Your task to perform on an android device: Clear the shopping cart on costco. Search for "macbook air" on costco, select the first entry, add it to the cart, then select checkout. Image 0: 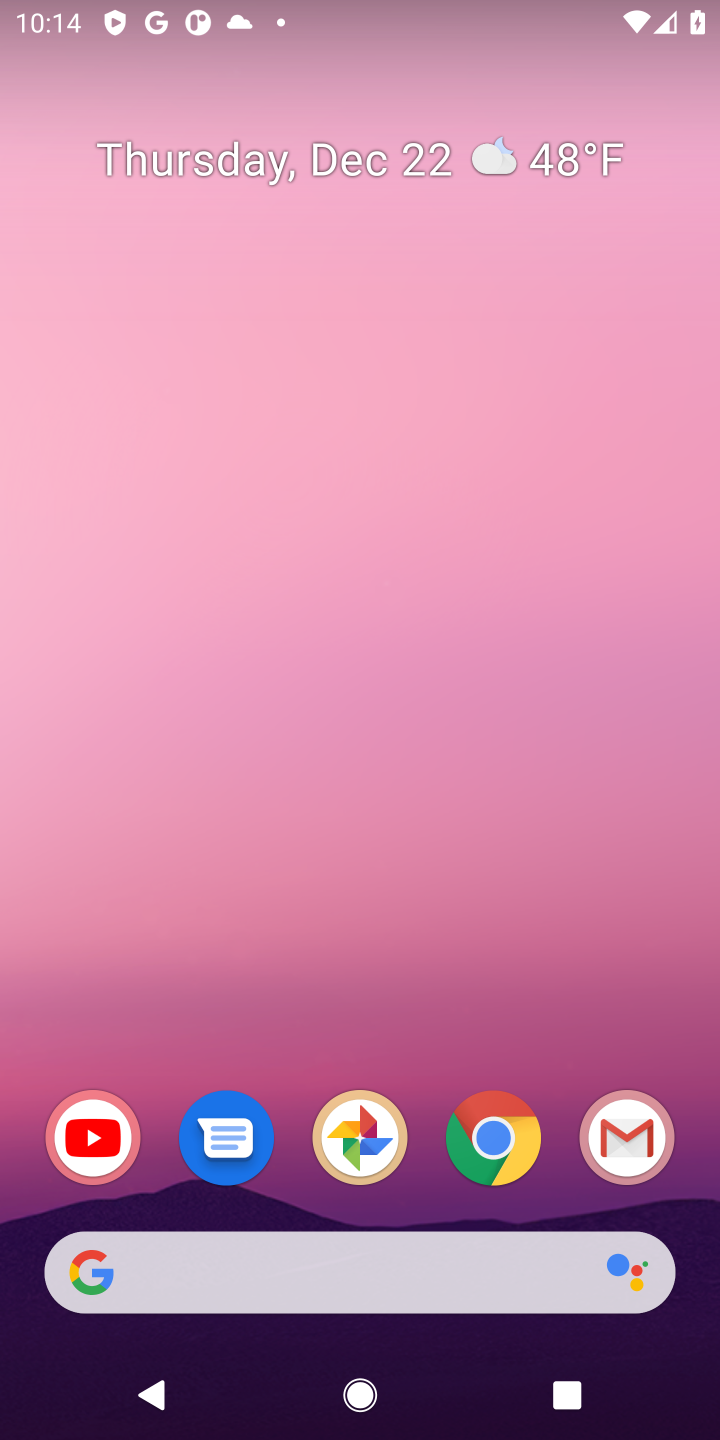
Step 0: click (511, 1134)
Your task to perform on an android device: Clear the shopping cart on costco. Search for "macbook air" on costco, select the first entry, add it to the cart, then select checkout. Image 1: 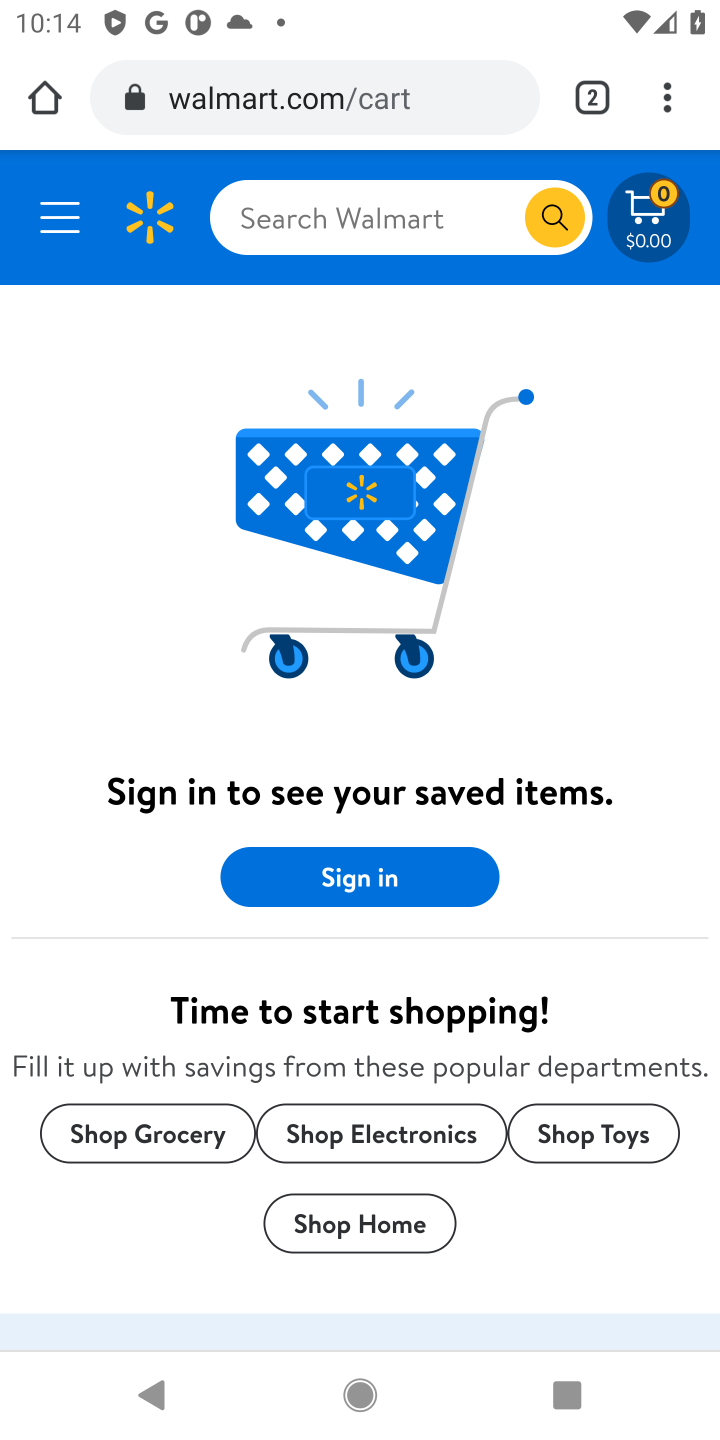
Step 1: click (43, 101)
Your task to perform on an android device: Clear the shopping cart on costco. Search for "macbook air" on costco, select the first entry, add it to the cart, then select checkout. Image 2: 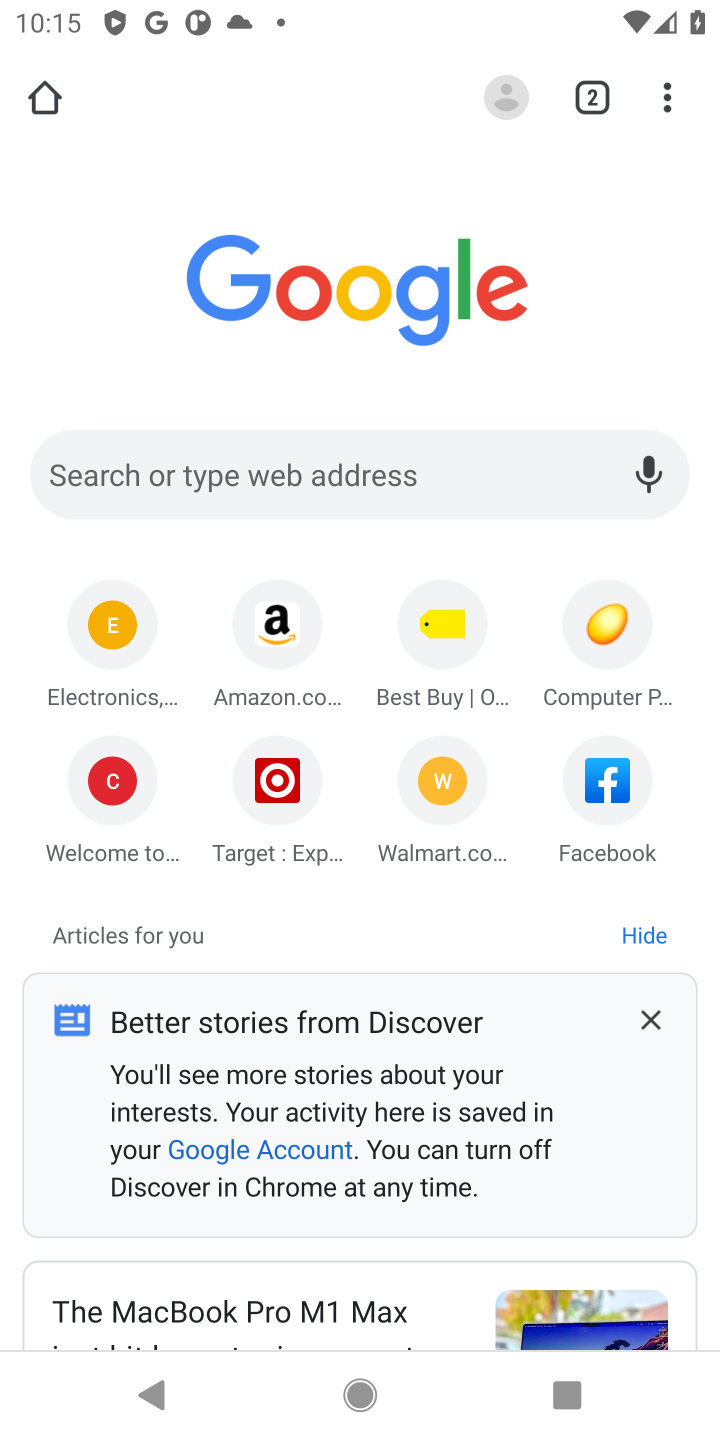
Step 2: click (346, 478)
Your task to perform on an android device: Clear the shopping cart on costco. Search for "macbook air" on costco, select the first entry, add it to the cart, then select checkout. Image 3: 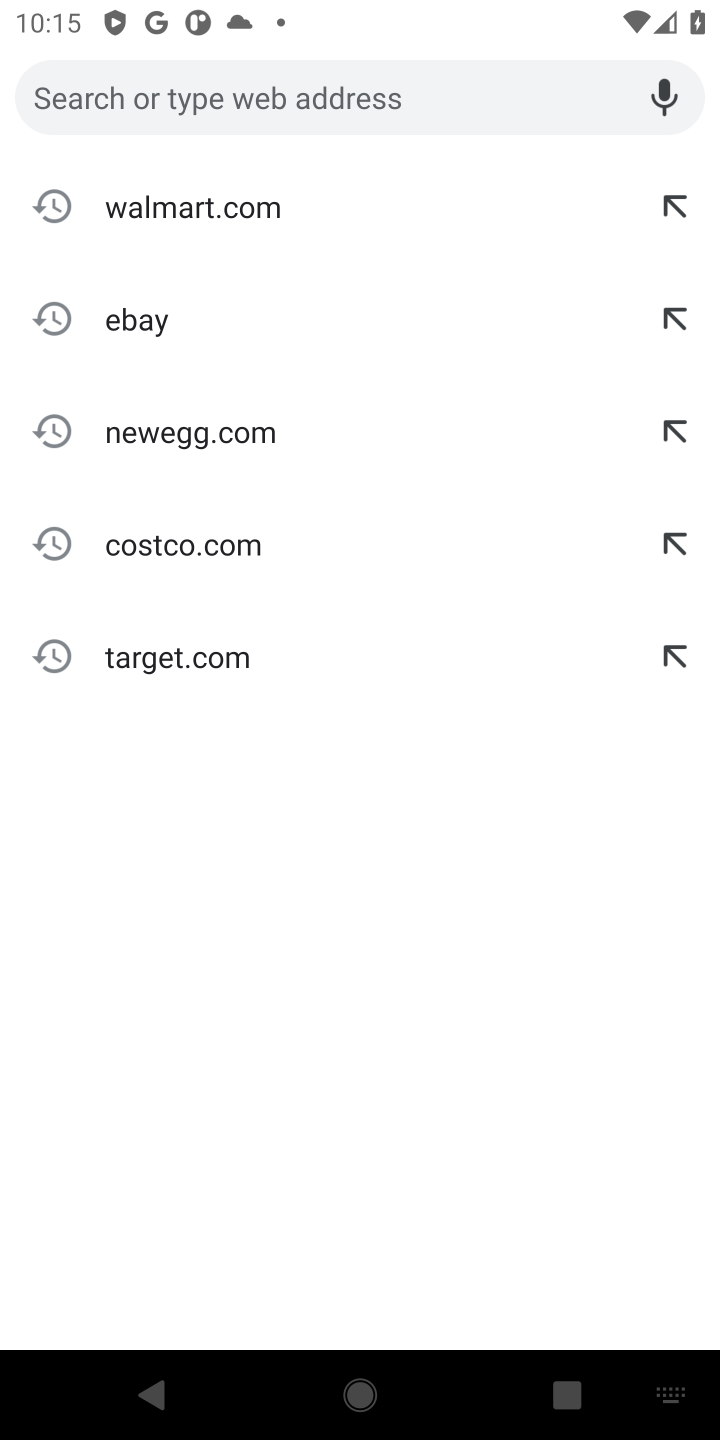
Step 3: click (209, 557)
Your task to perform on an android device: Clear the shopping cart on costco. Search for "macbook air" on costco, select the first entry, add it to the cart, then select checkout. Image 4: 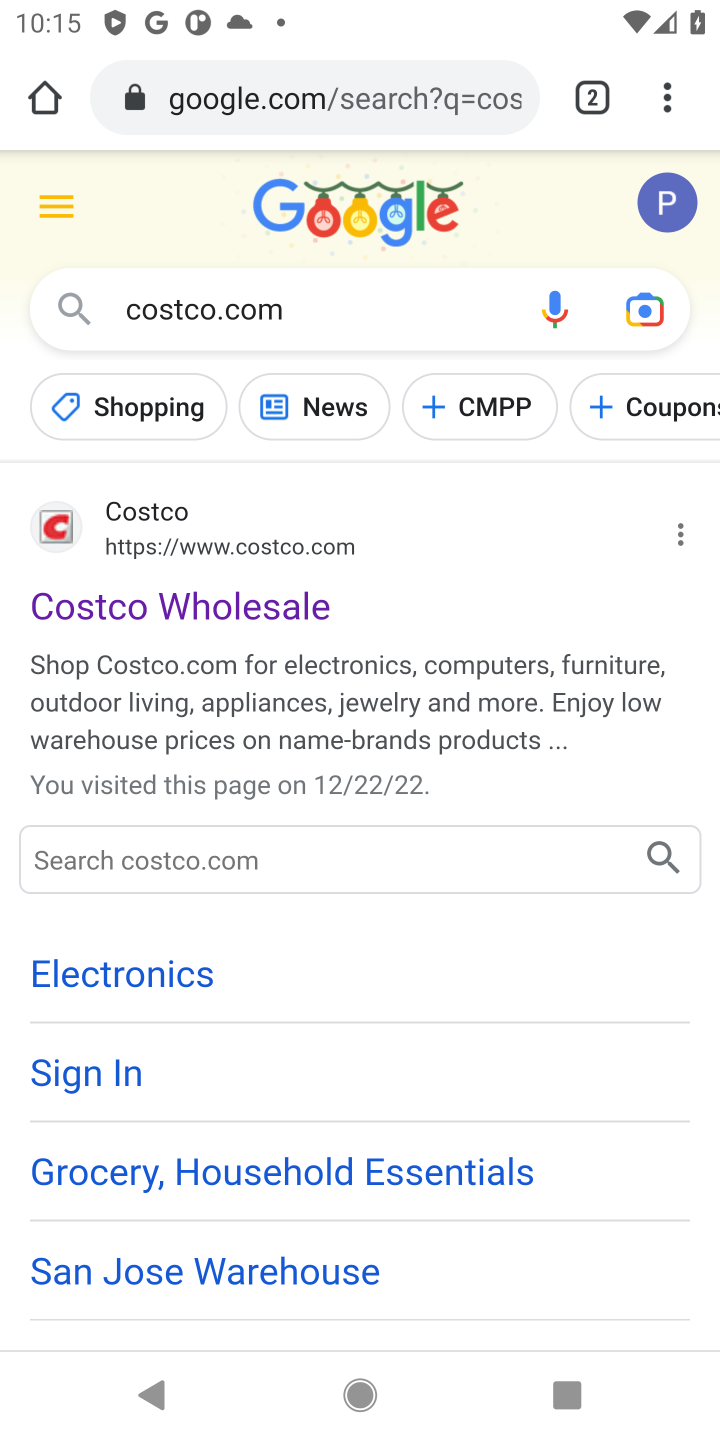
Step 4: click (210, 554)
Your task to perform on an android device: Clear the shopping cart on costco. Search for "macbook air" on costco, select the first entry, add it to the cart, then select checkout. Image 5: 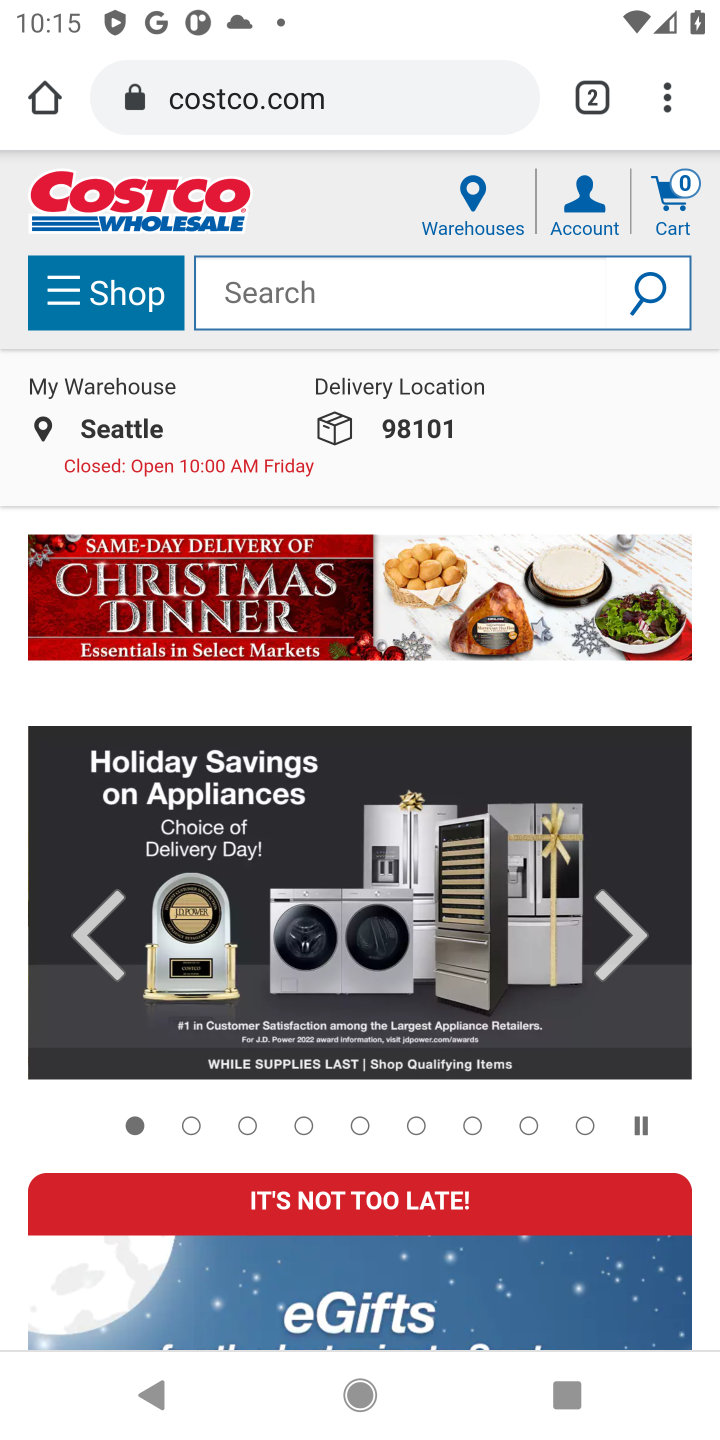
Step 5: click (667, 208)
Your task to perform on an android device: Clear the shopping cart on costco. Search for "macbook air" on costco, select the first entry, add it to the cart, then select checkout. Image 6: 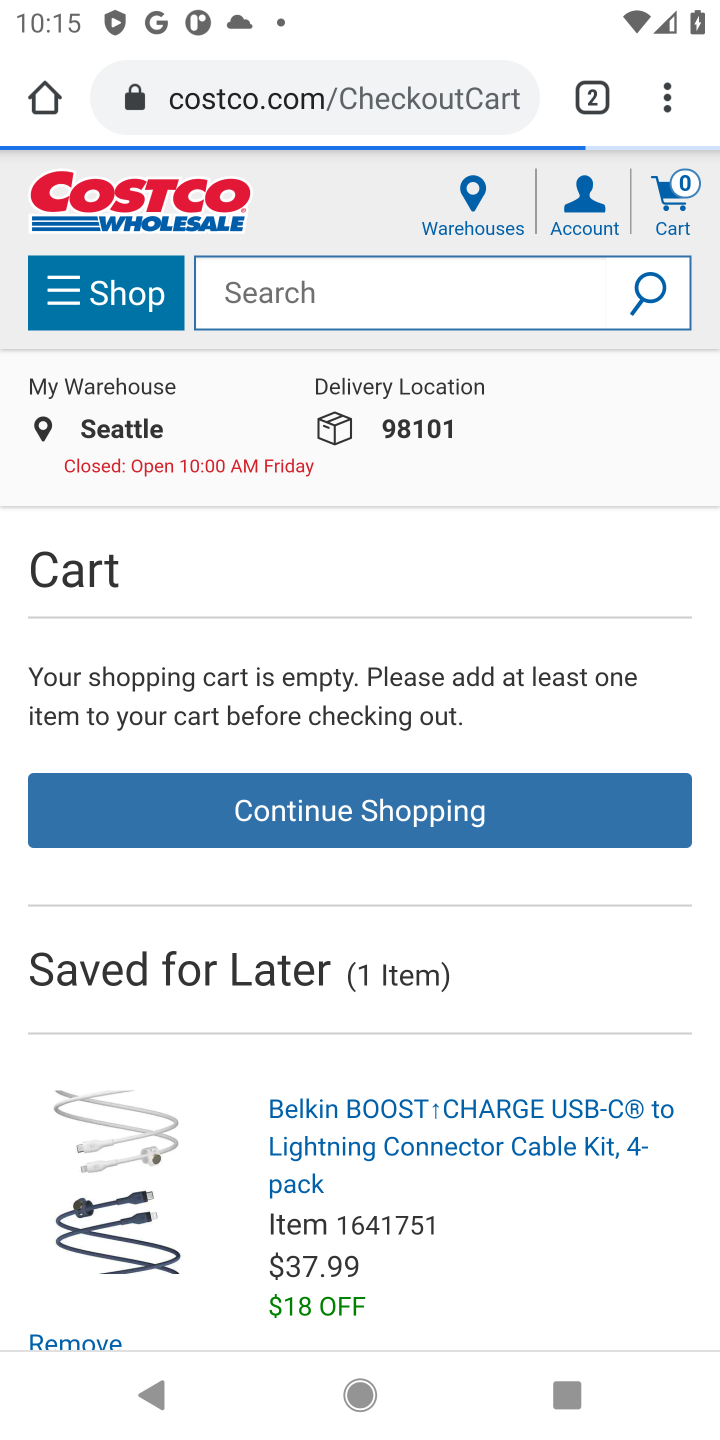
Step 6: click (437, 290)
Your task to perform on an android device: Clear the shopping cart on costco. Search for "macbook air" on costco, select the first entry, add it to the cart, then select checkout. Image 7: 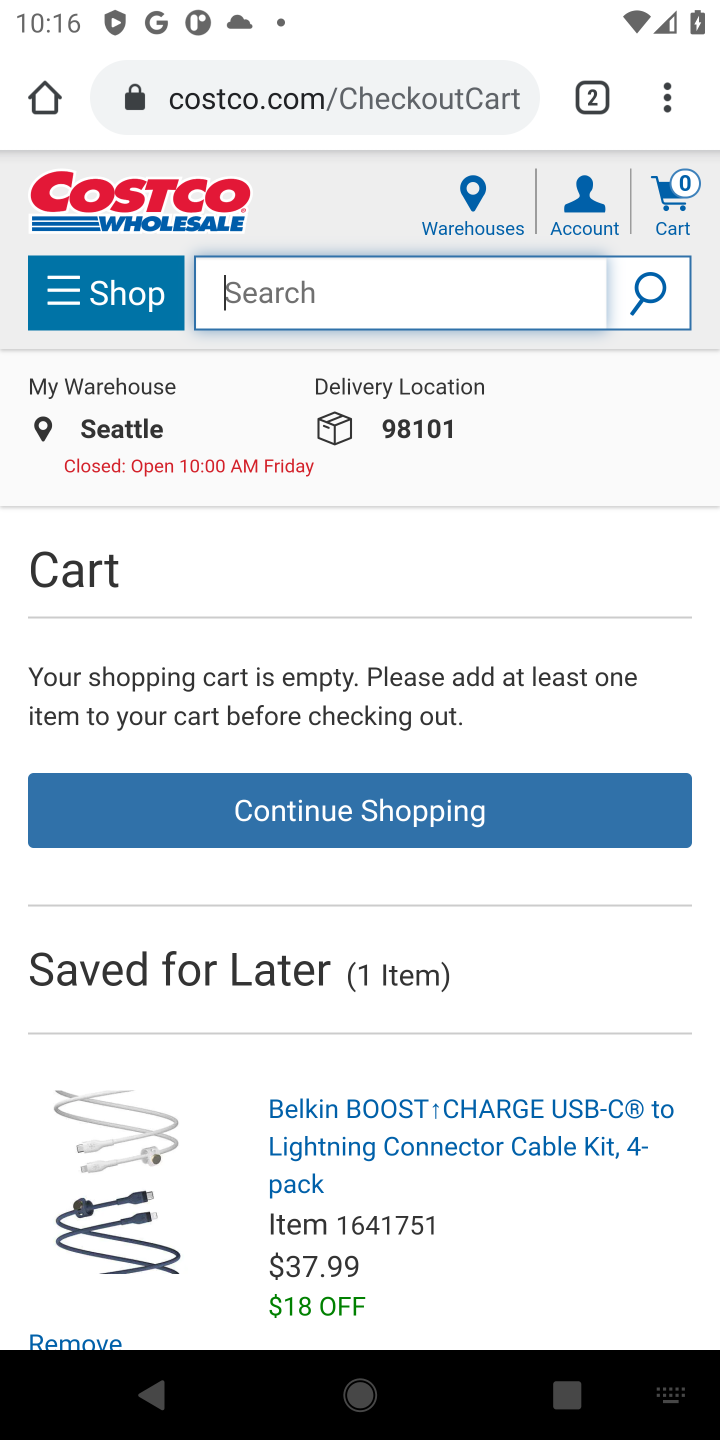
Step 7: type "macbook air"
Your task to perform on an android device: Clear the shopping cart on costco. Search for "macbook air" on costco, select the first entry, add it to the cart, then select checkout. Image 8: 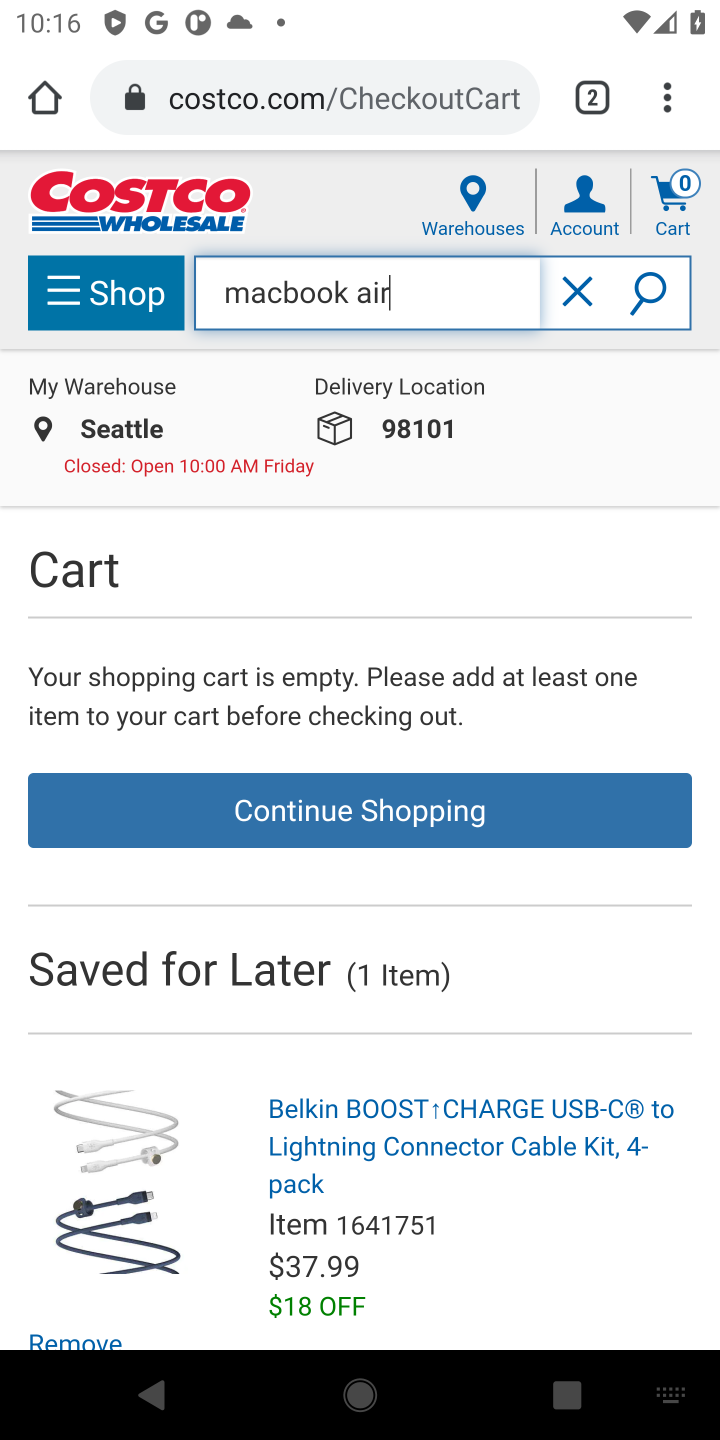
Step 8: press enter
Your task to perform on an android device: Clear the shopping cart on costco. Search for "macbook air" on costco, select the first entry, add it to the cart, then select checkout. Image 9: 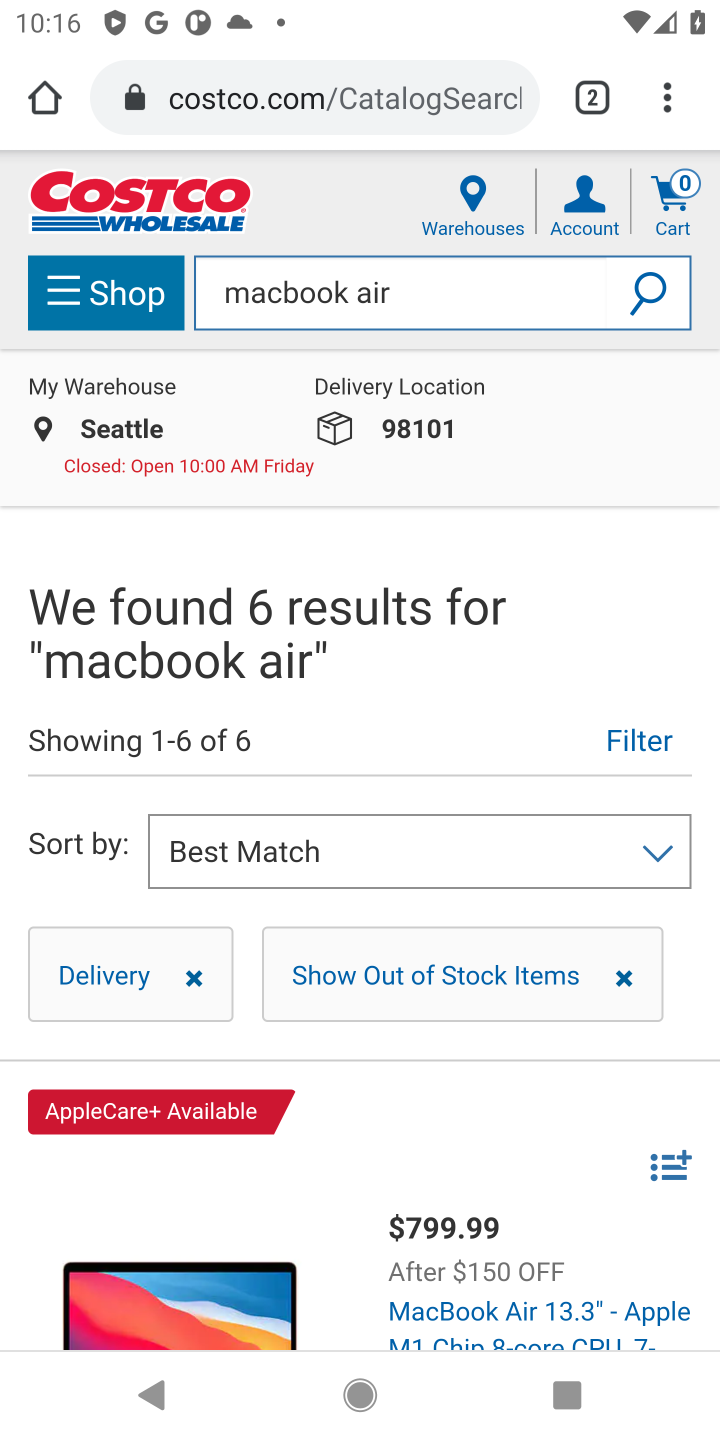
Step 9: drag from (469, 1149) to (492, 641)
Your task to perform on an android device: Clear the shopping cart on costco. Search for "macbook air" on costco, select the first entry, add it to the cart, then select checkout. Image 10: 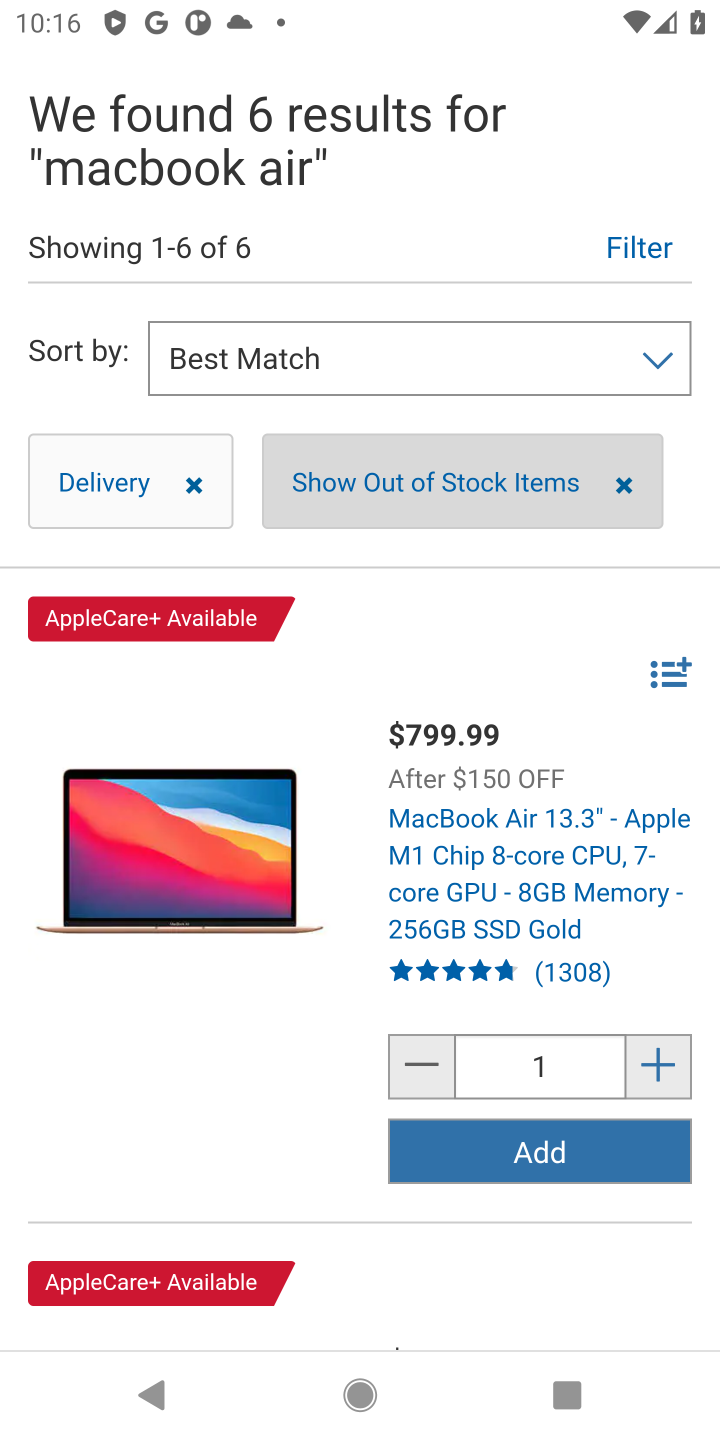
Step 10: click (185, 835)
Your task to perform on an android device: Clear the shopping cart on costco. Search for "macbook air" on costco, select the first entry, add it to the cart, then select checkout. Image 11: 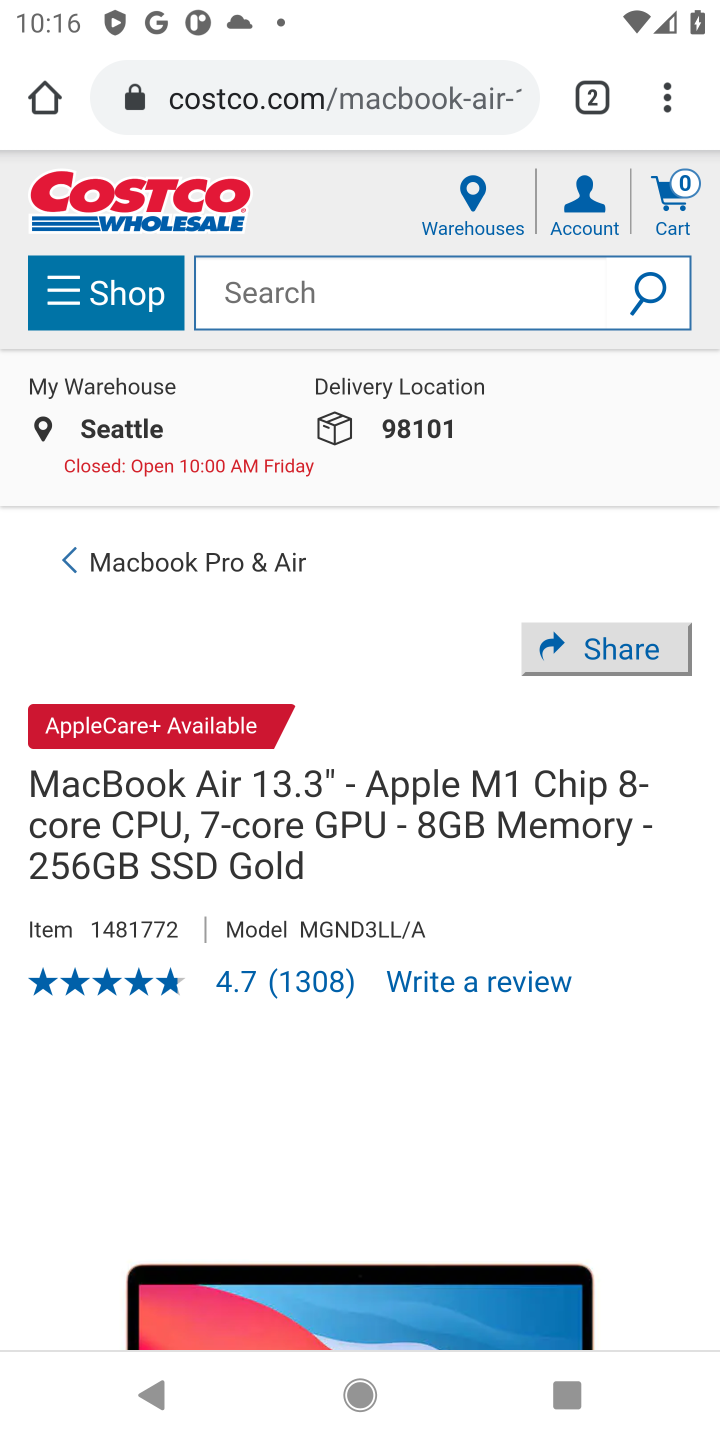
Step 11: drag from (488, 1155) to (610, 371)
Your task to perform on an android device: Clear the shopping cart on costco. Search for "macbook air" on costco, select the first entry, add it to the cart, then select checkout. Image 12: 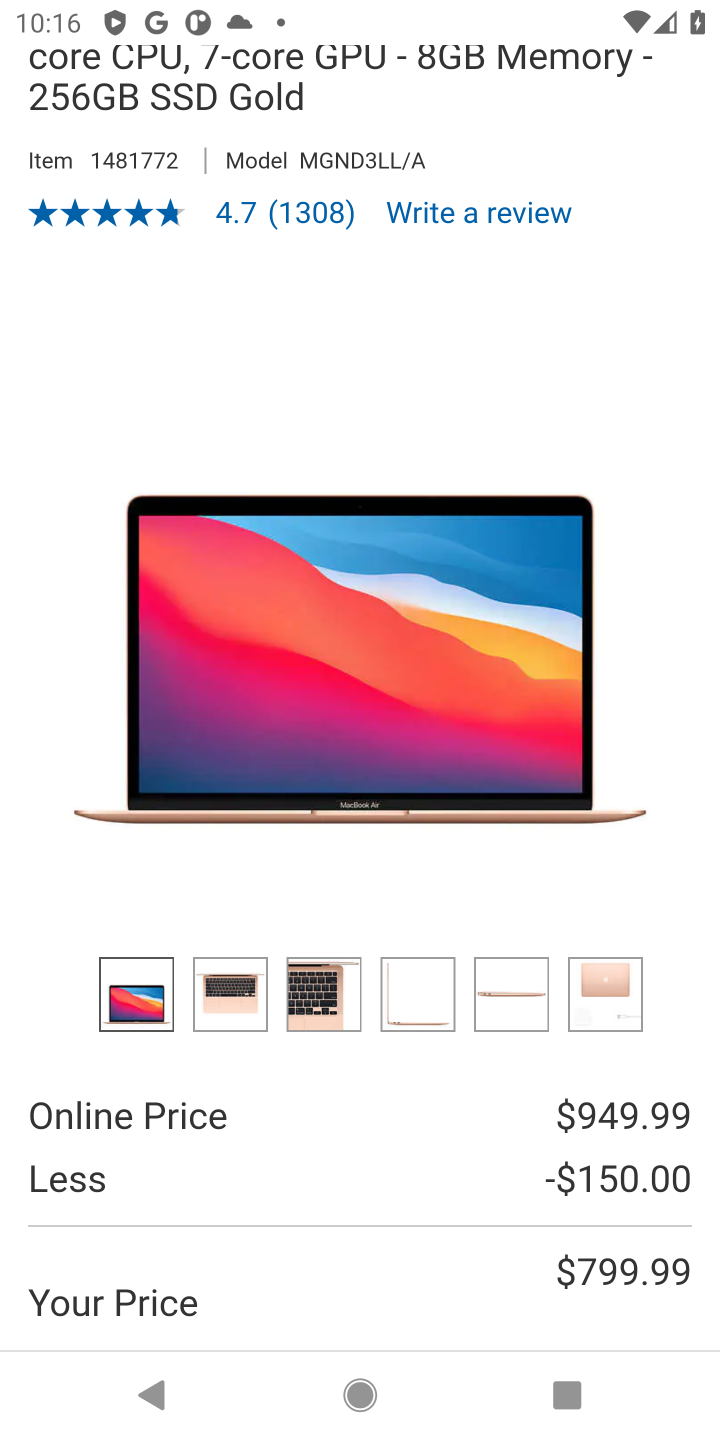
Step 12: drag from (453, 1122) to (487, 365)
Your task to perform on an android device: Clear the shopping cart on costco. Search for "macbook air" on costco, select the first entry, add it to the cart, then select checkout. Image 13: 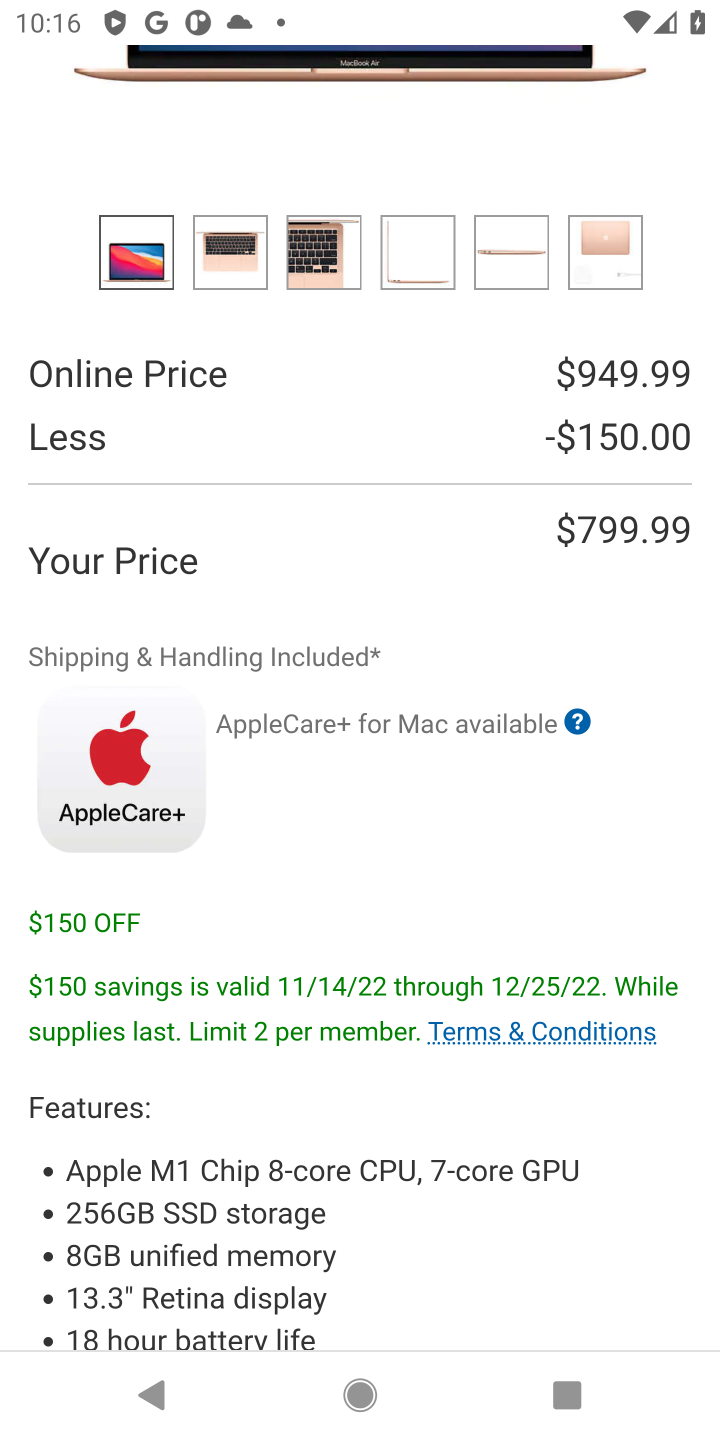
Step 13: drag from (501, 855) to (519, 387)
Your task to perform on an android device: Clear the shopping cart on costco. Search for "macbook air" on costco, select the first entry, add it to the cart, then select checkout. Image 14: 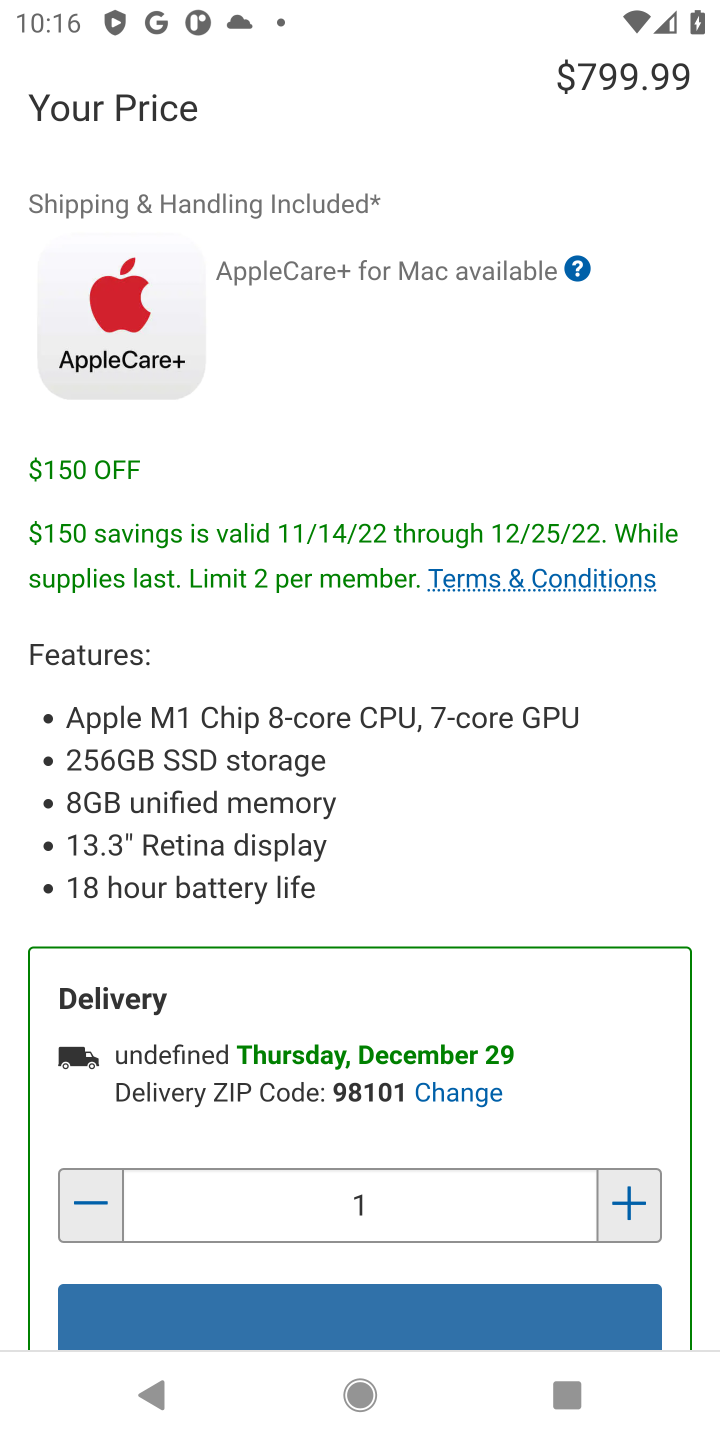
Step 14: drag from (552, 1029) to (634, 573)
Your task to perform on an android device: Clear the shopping cart on costco. Search for "macbook air" on costco, select the first entry, add it to the cart, then select checkout. Image 15: 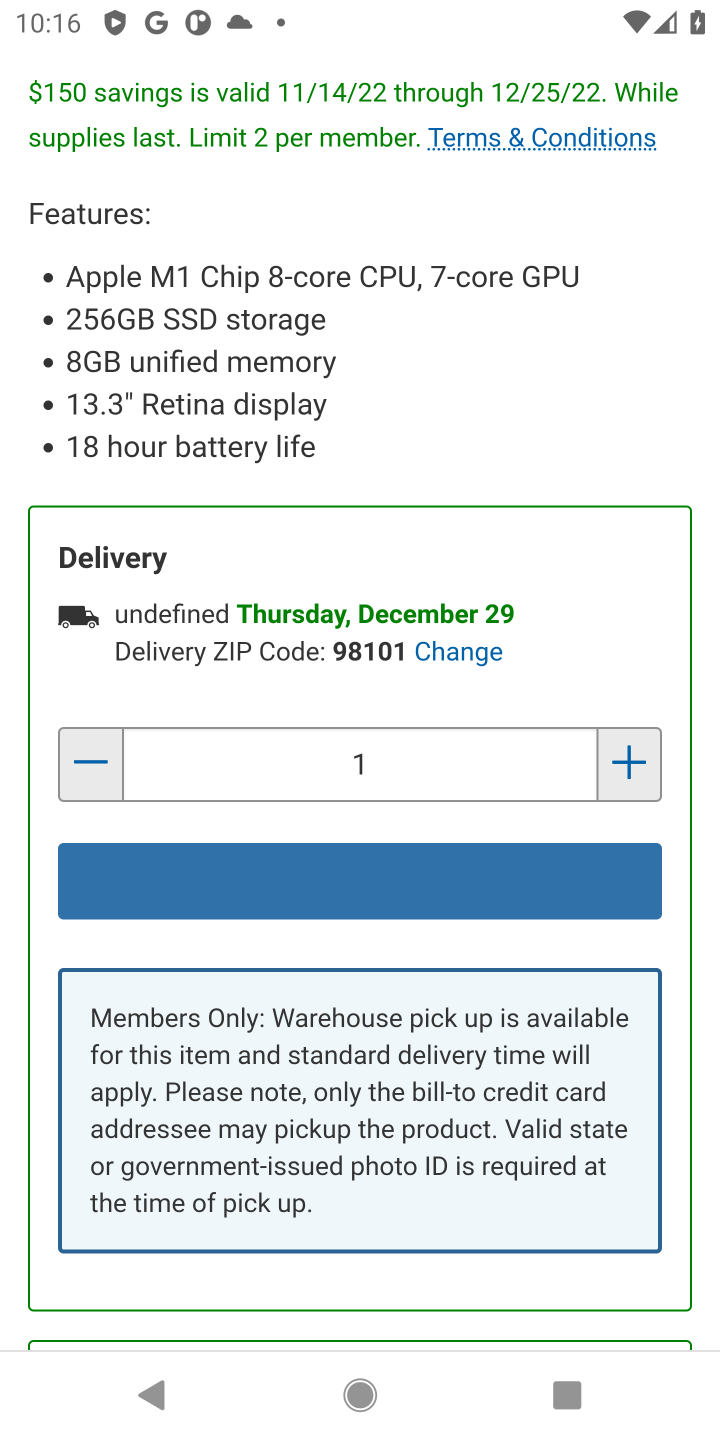
Step 15: click (398, 894)
Your task to perform on an android device: Clear the shopping cart on costco. Search for "macbook air" on costco, select the first entry, add it to the cart, then select checkout. Image 16: 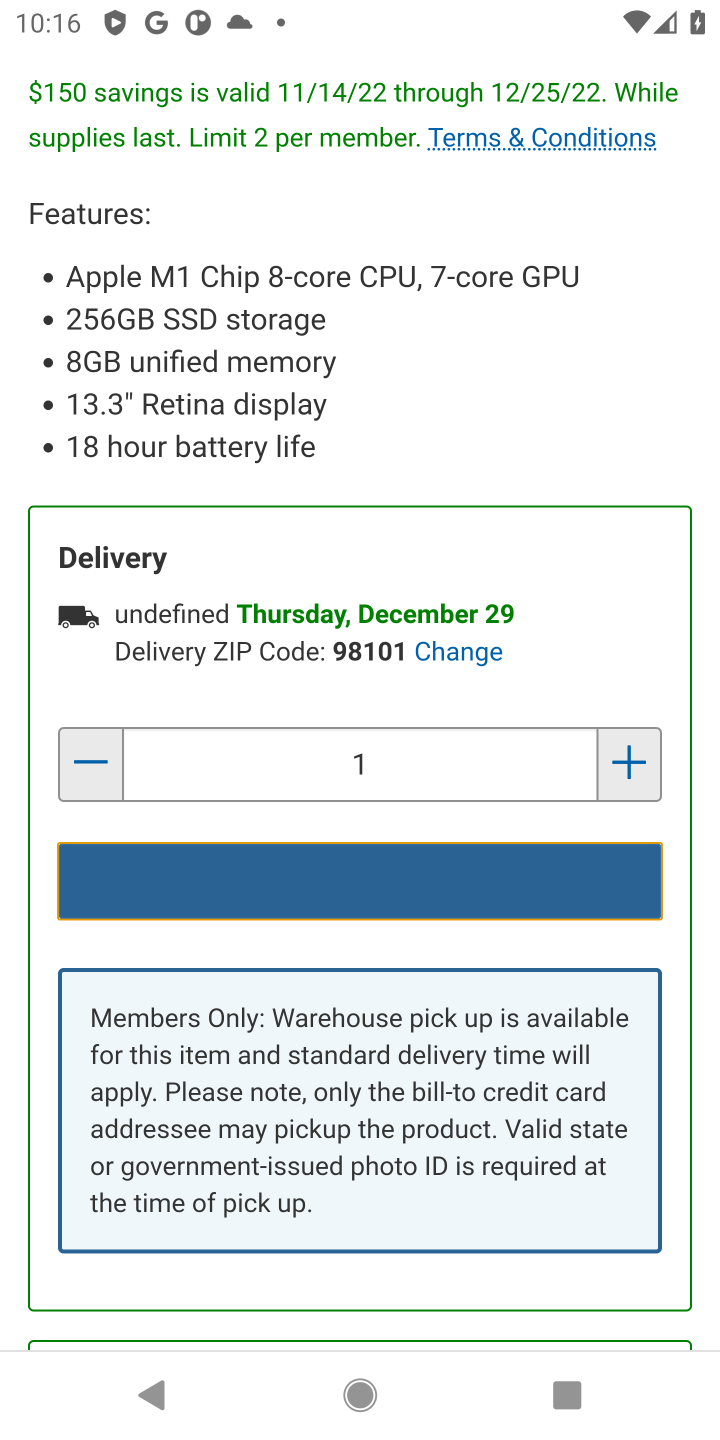
Step 16: press back button
Your task to perform on an android device: Clear the shopping cart on costco. Search for "macbook air" on costco, select the first entry, add it to the cart, then select checkout. Image 17: 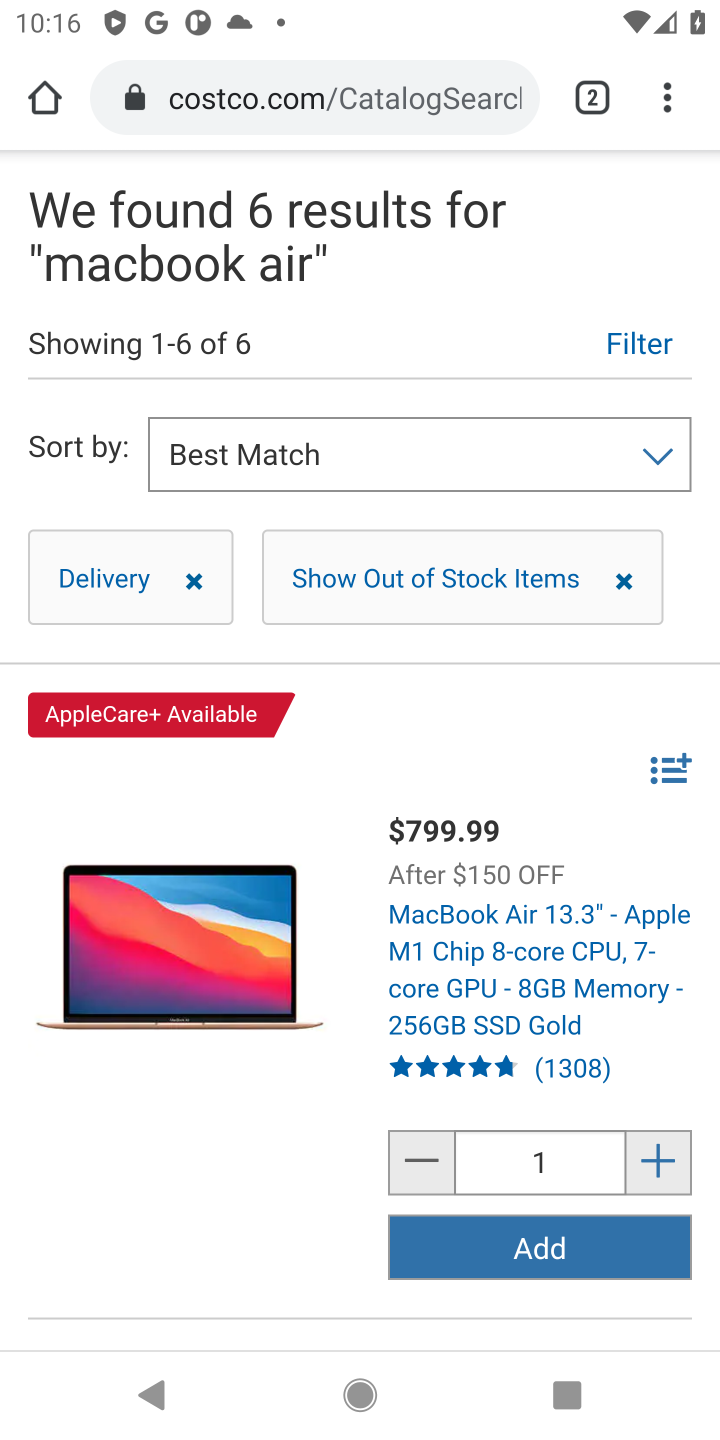
Step 17: click (538, 1248)
Your task to perform on an android device: Clear the shopping cart on costco. Search for "macbook air" on costco, select the first entry, add it to the cart, then select checkout. Image 18: 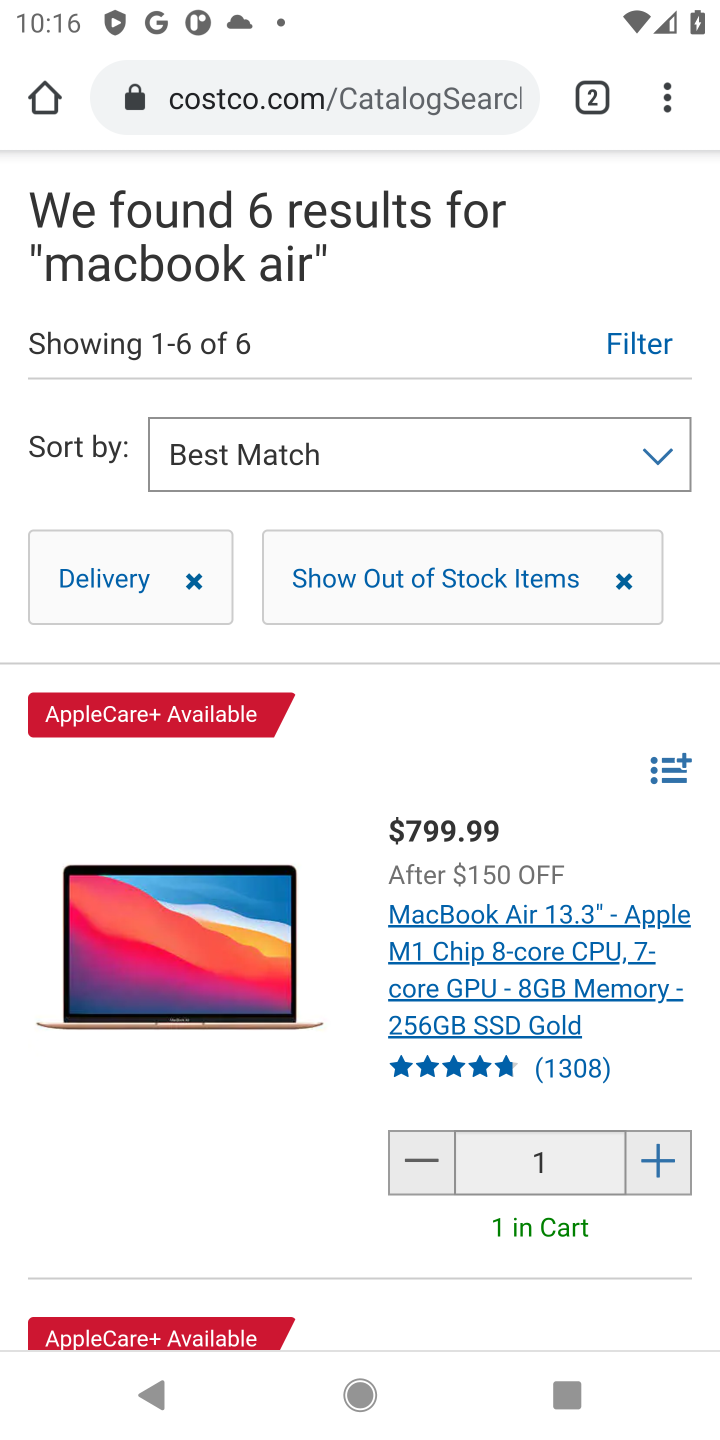
Step 18: drag from (543, 279) to (541, 1122)
Your task to perform on an android device: Clear the shopping cart on costco. Search for "macbook air" on costco, select the first entry, add it to the cart, then select checkout. Image 19: 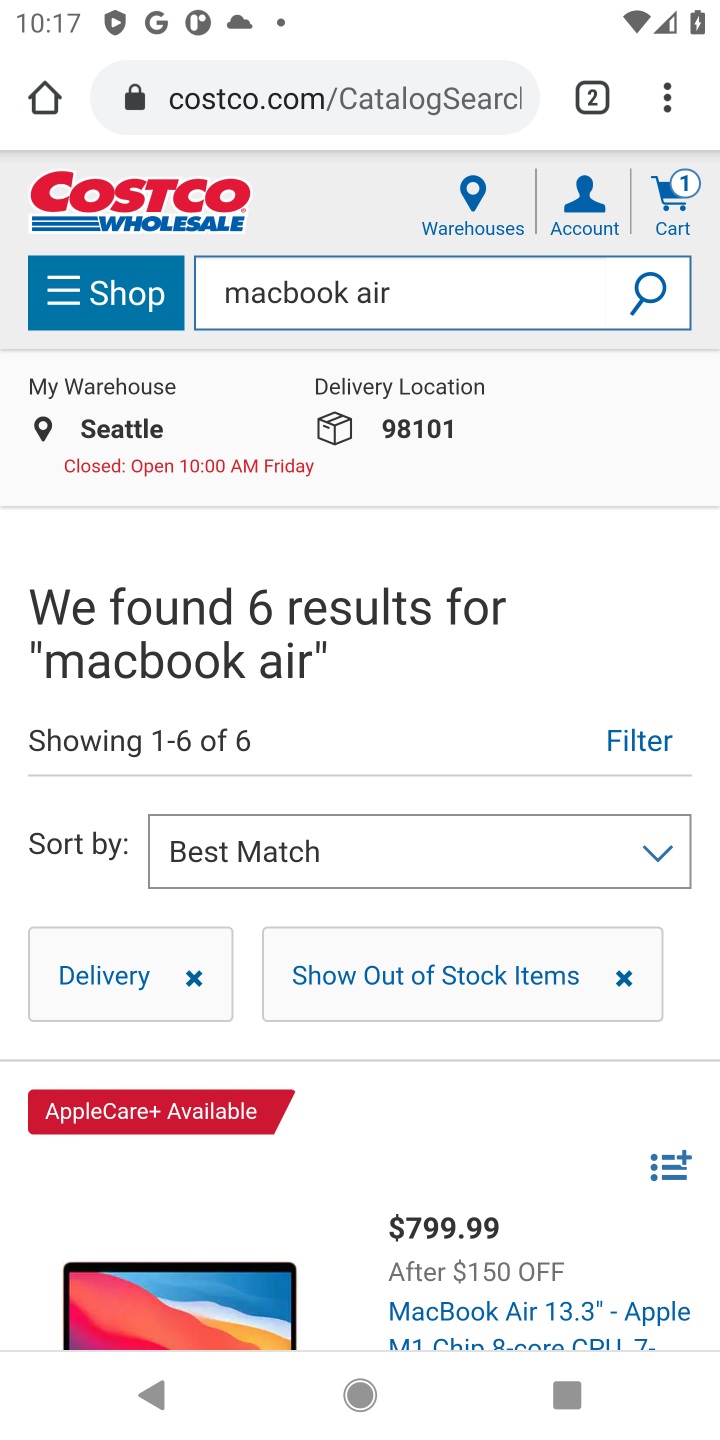
Step 19: click (678, 206)
Your task to perform on an android device: Clear the shopping cart on costco. Search for "macbook air" on costco, select the first entry, add it to the cart, then select checkout. Image 20: 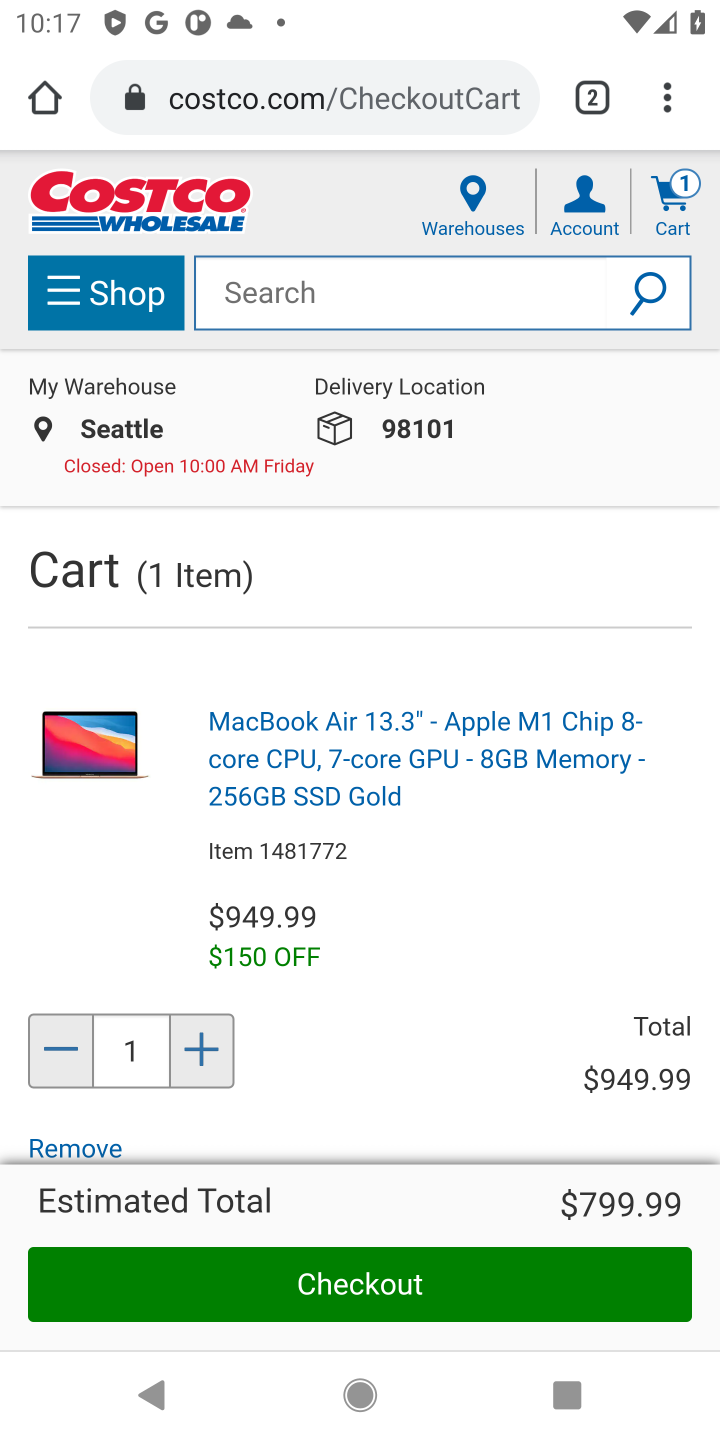
Step 20: click (387, 1275)
Your task to perform on an android device: Clear the shopping cart on costco. Search for "macbook air" on costco, select the first entry, add it to the cart, then select checkout. Image 21: 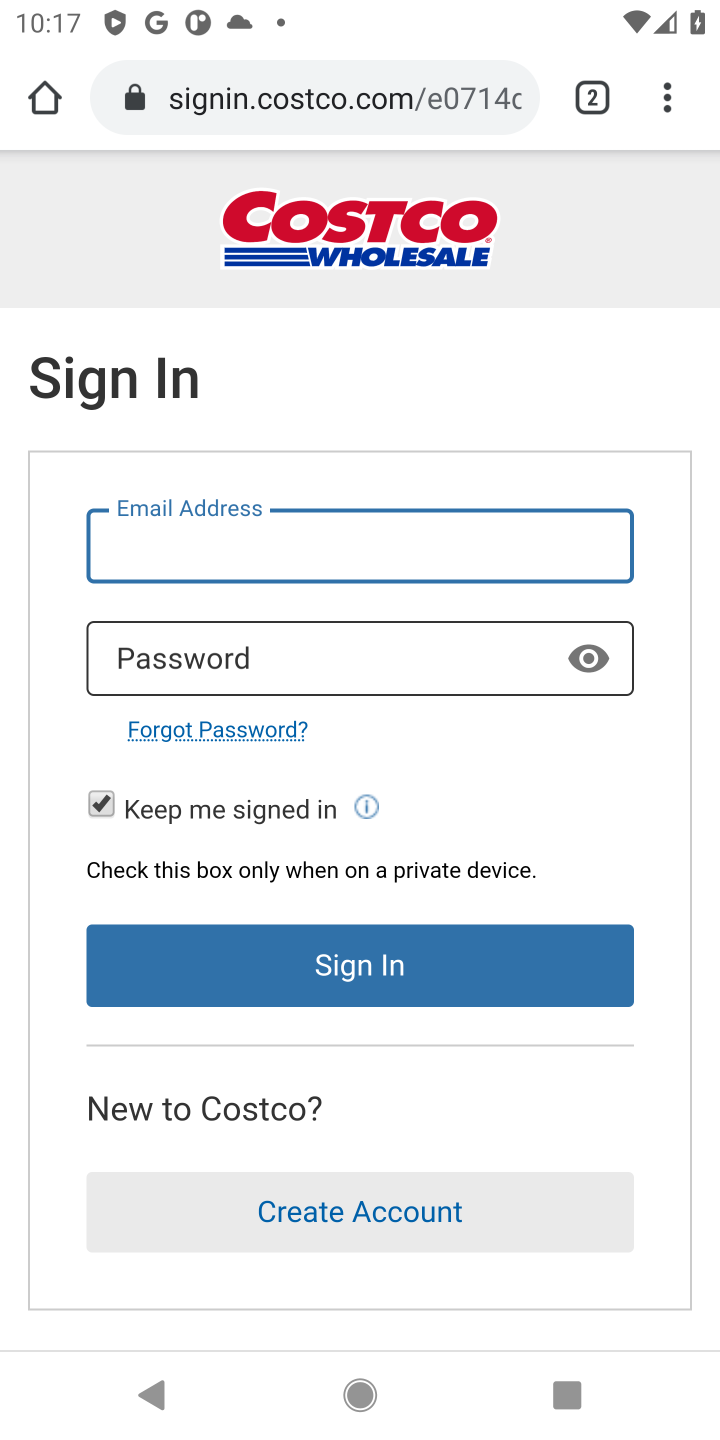
Step 21: task complete